Your task to perform on an android device: Open Wikipedia Image 0: 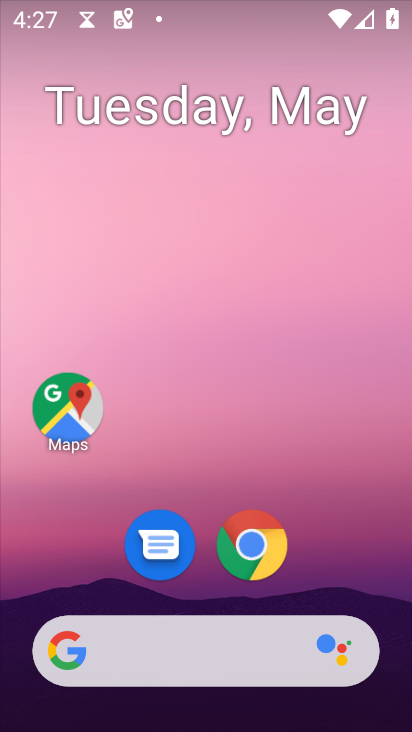
Step 0: click (251, 550)
Your task to perform on an android device: Open Wikipedia Image 1: 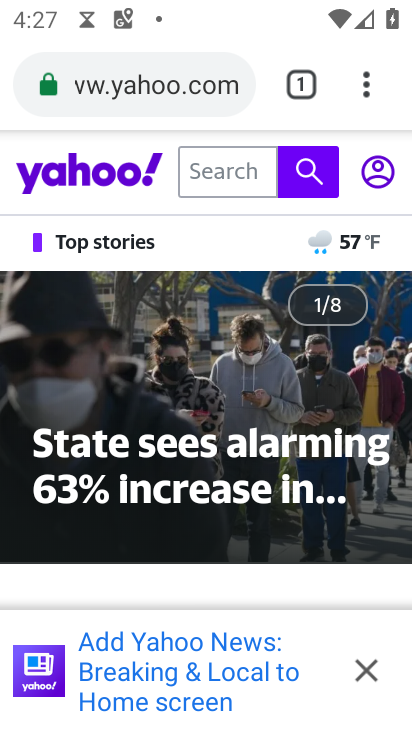
Step 1: click (232, 87)
Your task to perform on an android device: Open Wikipedia Image 2: 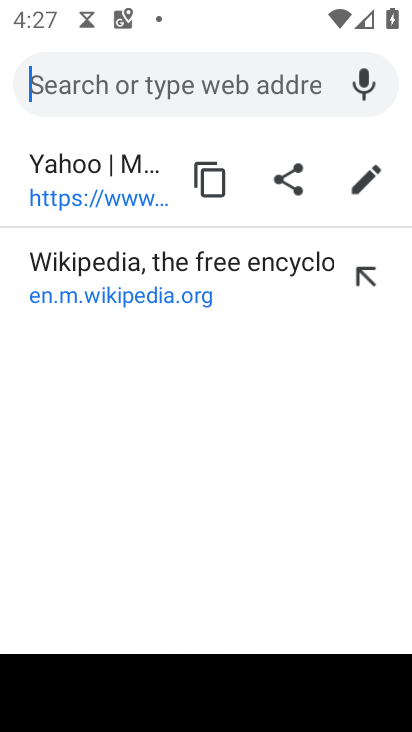
Step 2: type "Wikipedia"
Your task to perform on an android device: Open Wikipedia Image 3: 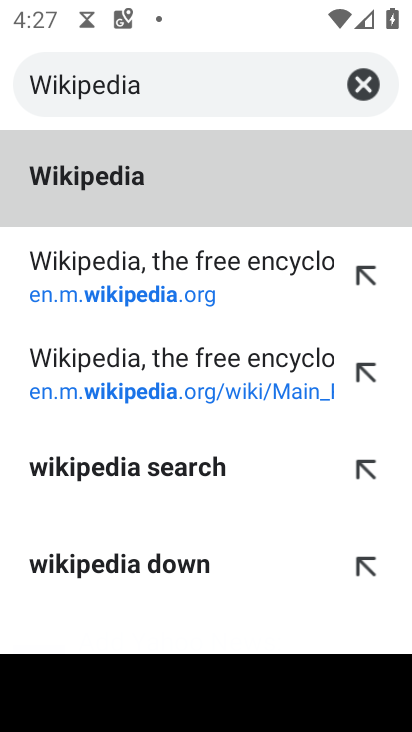
Step 3: click (85, 194)
Your task to perform on an android device: Open Wikipedia Image 4: 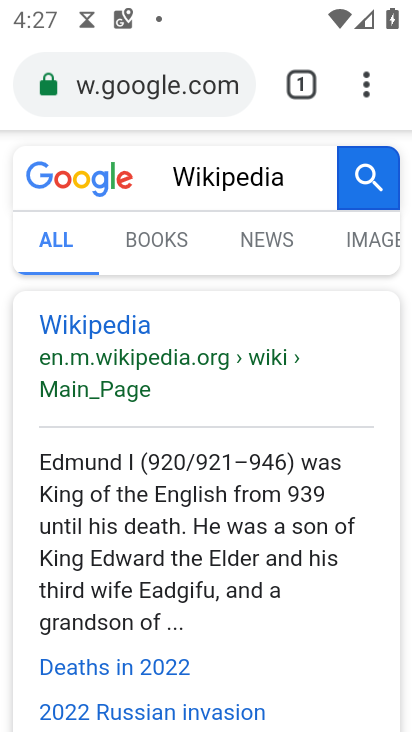
Step 4: click (98, 333)
Your task to perform on an android device: Open Wikipedia Image 5: 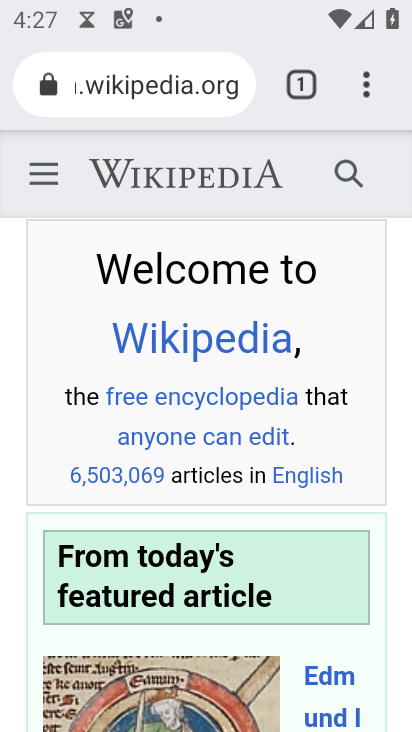
Step 5: task complete